Your task to perform on an android device: Open Wikipedia Image 0: 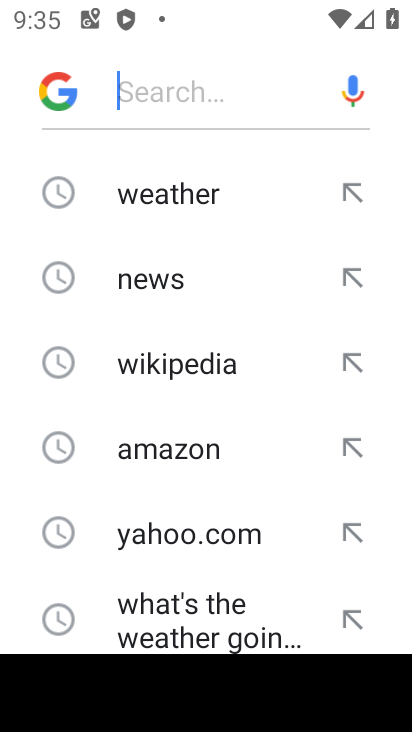
Step 0: press home button
Your task to perform on an android device: Open Wikipedia Image 1: 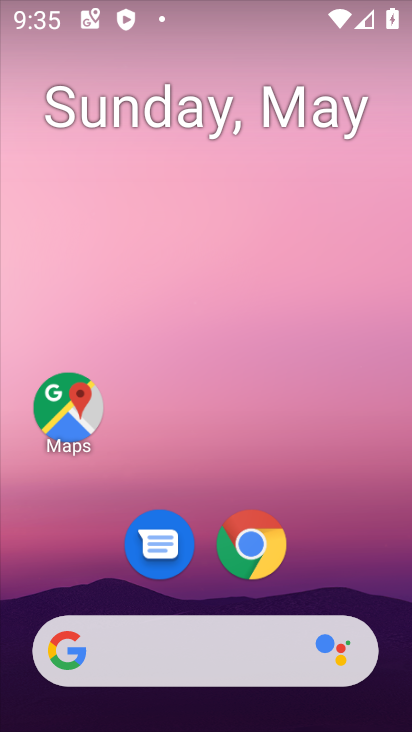
Step 1: click (271, 553)
Your task to perform on an android device: Open Wikipedia Image 2: 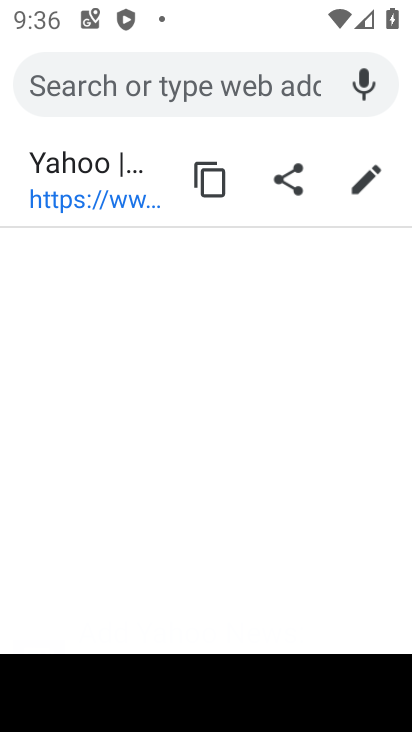
Step 2: type "wikipedia"
Your task to perform on an android device: Open Wikipedia Image 3: 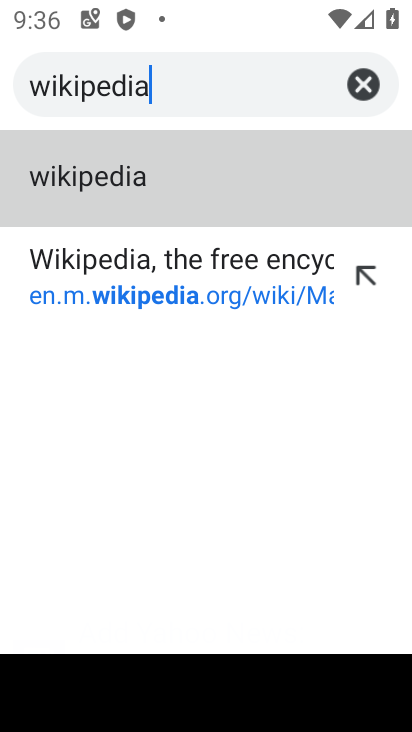
Step 3: click (118, 281)
Your task to perform on an android device: Open Wikipedia Image 4: 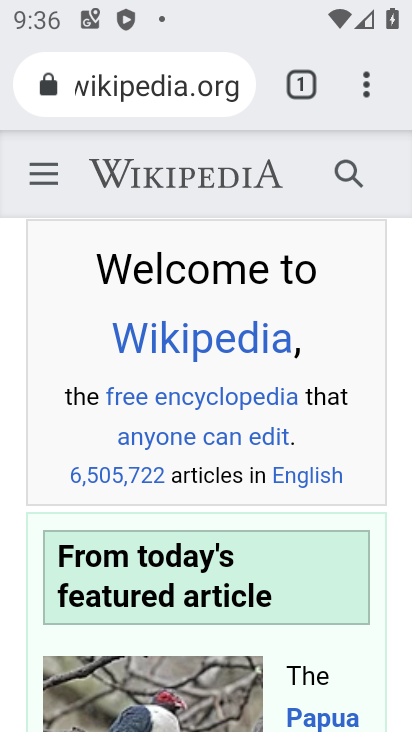
Step 4: task complete